Your task to perform on an android device: Show me the alarms in the clock app Image 0: 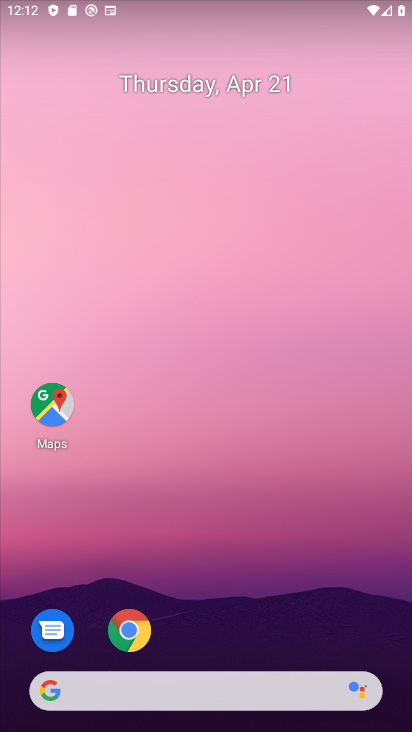
Step 0: drag from (327, 591) to (297, 130)
Your task to perform on an android device: Show me the alarms in the clock app Image 1: 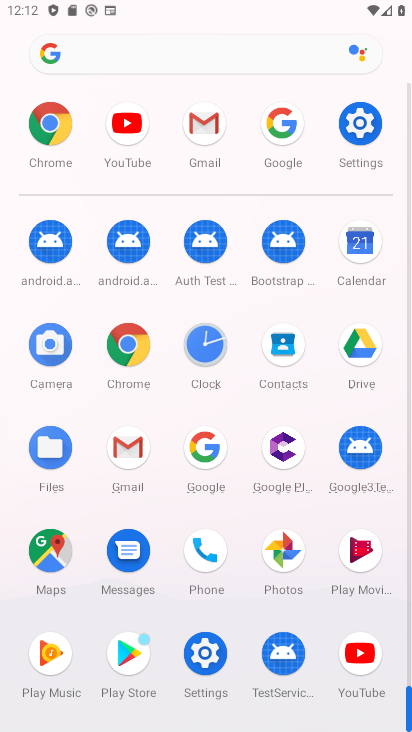
Step 1: click (205, 337)
Your task to perform on an android device: Show me the alarms in the clock app Image 2: 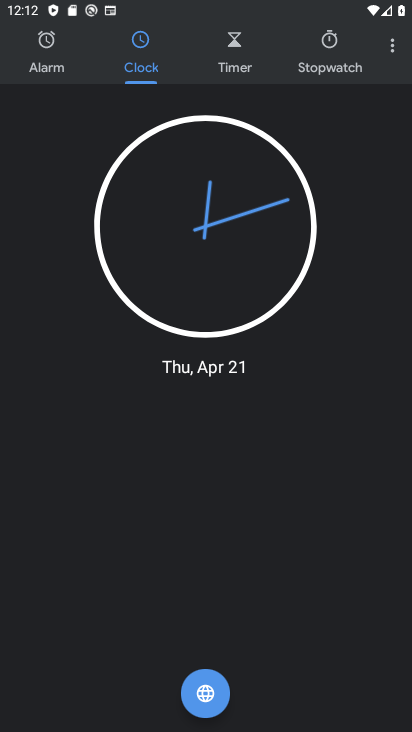
Step 2: click (36, 61)
Your task to perform on an android device: Show me the alarms in the clock app Image 3: 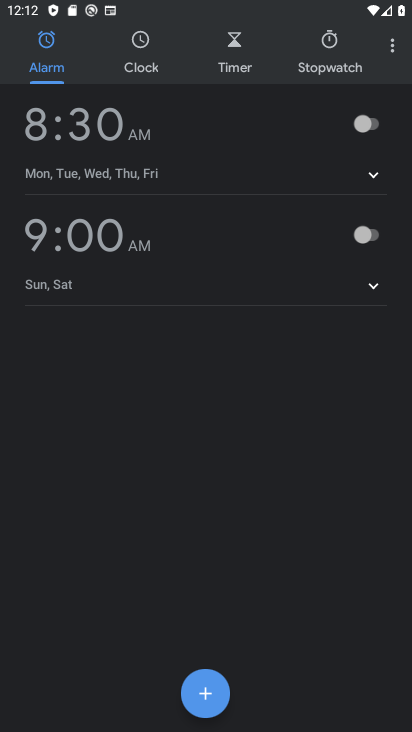
Step 3: click (114, 138)
Your task to perform on an android device: Show me the alarms in the clock app Image 4: 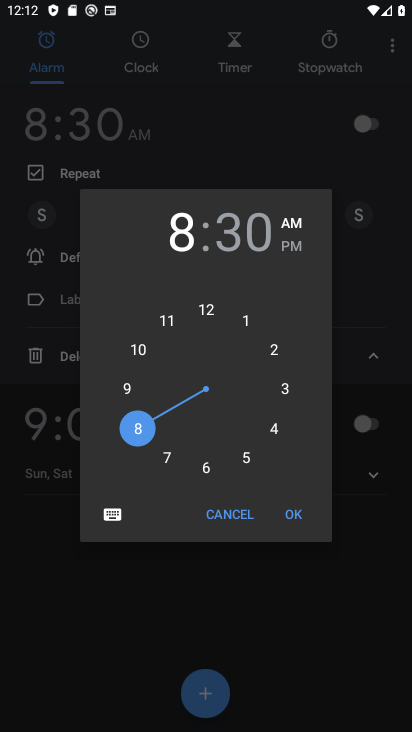
Step 4: task complete